Your task to perform on an android device: Empty the shopping cart on newegg. Search for jbl flip 4 on newegg, select the first entry, and add it to the cart. Image 0: 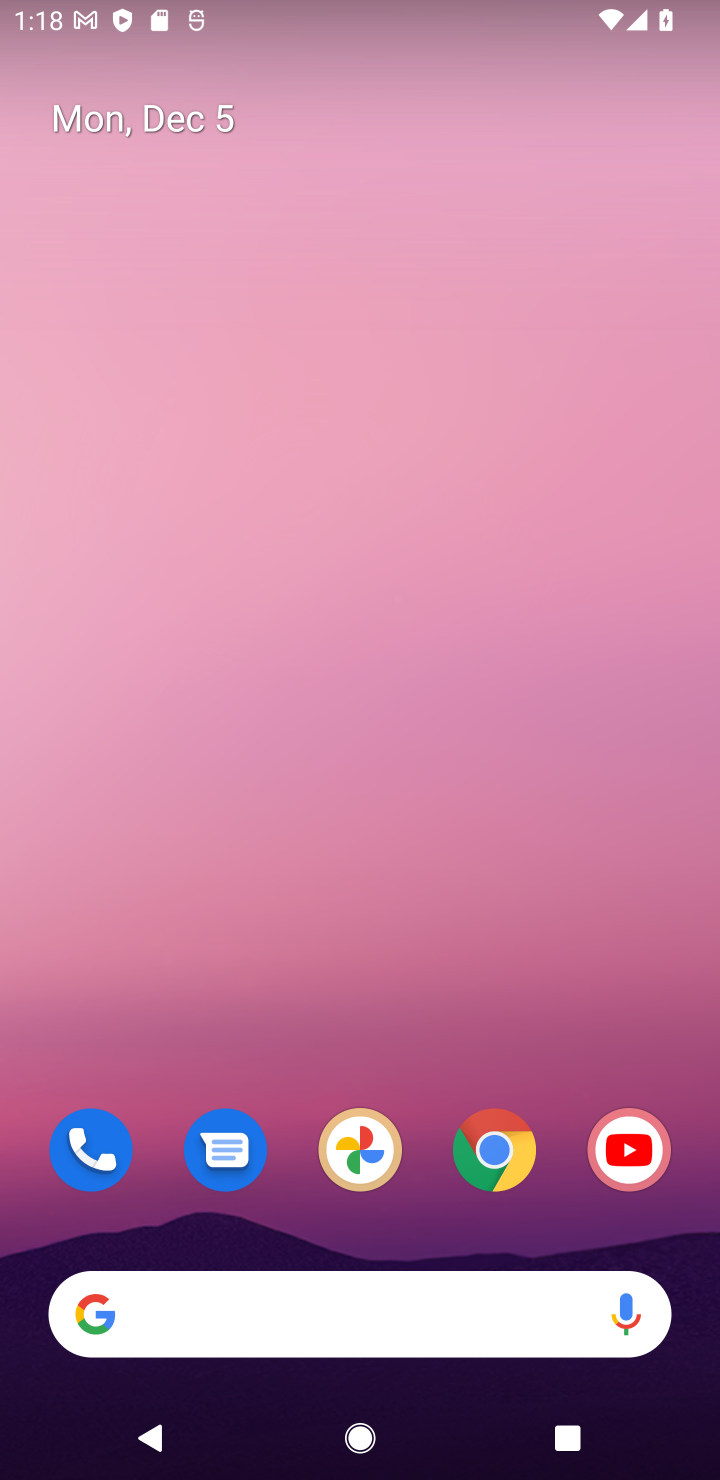
Step 0: click (517, 1139)
Your task to perform on an android device: Empty the shopping cart on newegg. Search for jbl flip 4 on newegg, select the first entry, and add it to the cart. Image 1: 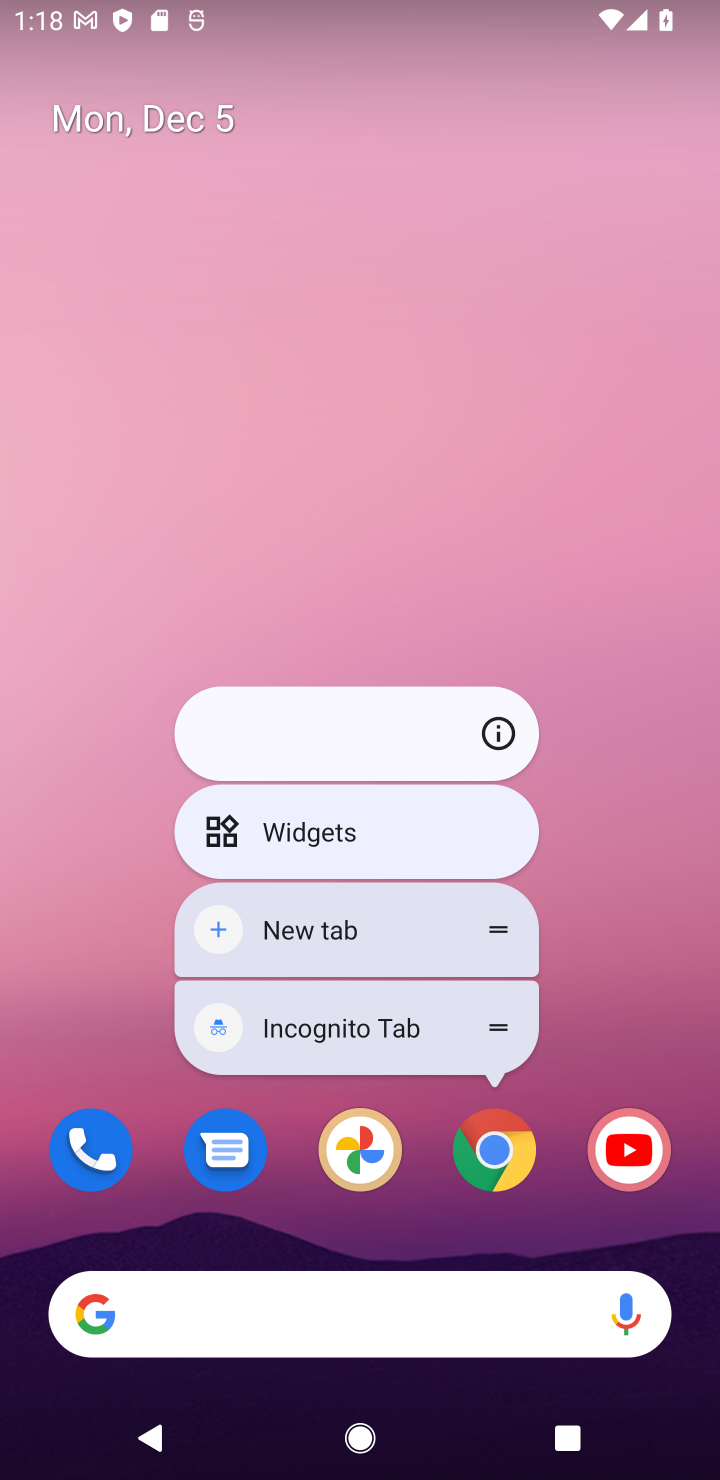
Step 1: click (517, 1139)
Your task to perform on an android device: Empty the shopping cart on newegg. Search for jbl flip 4 on newegg, select the first entry, and add it to the cart. Image 2: 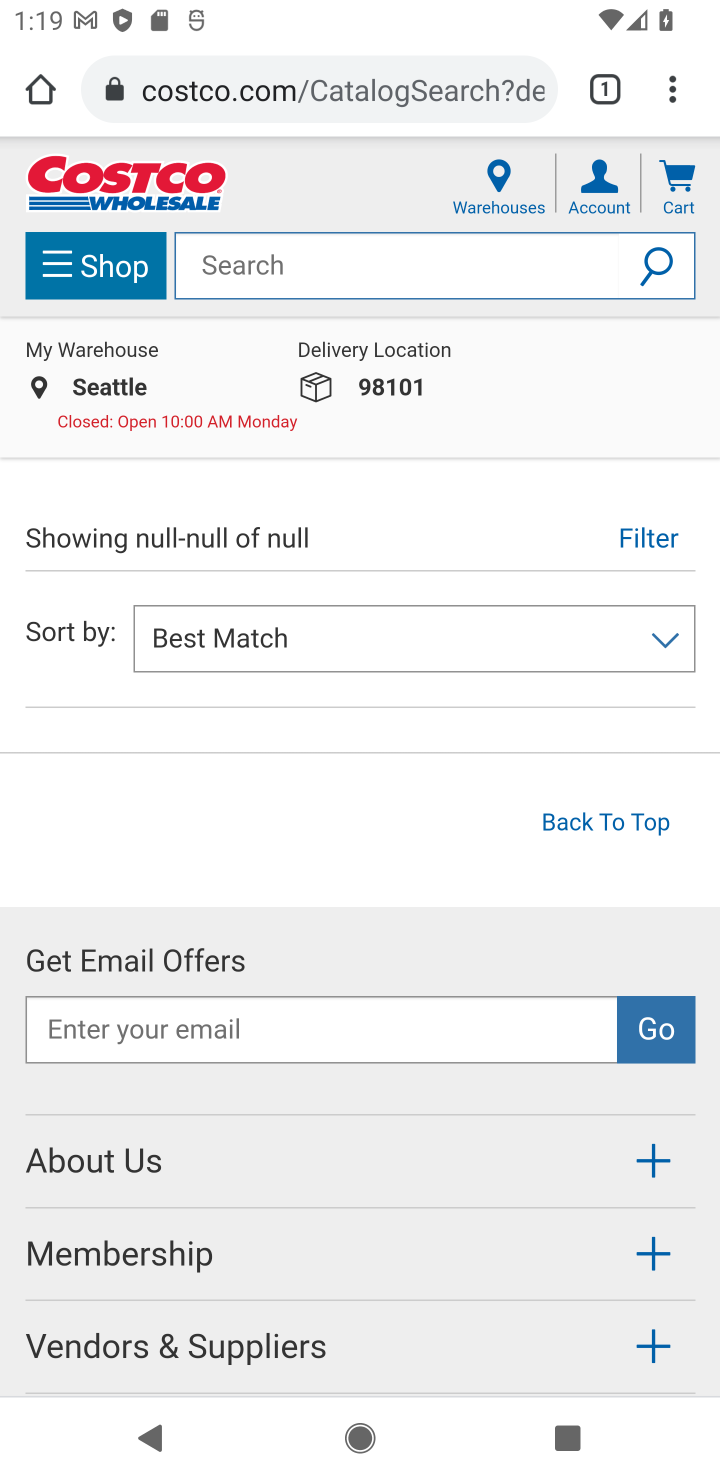
Step 2: click (388, 265)
Your task to perform on an android device: Empty the shopping cart on newegg. Search for jbl flip 4 on newegg, select the first entry, and add it to the cart. Image 3: 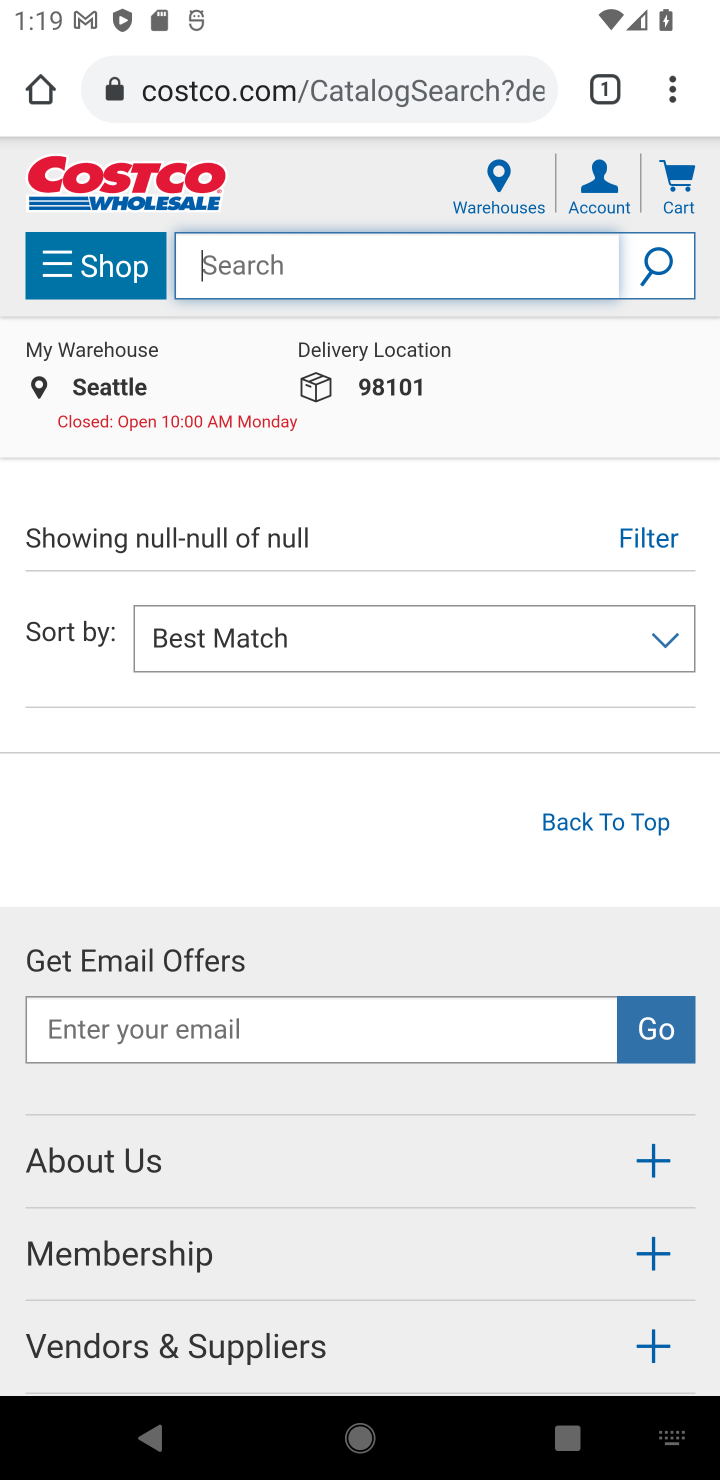
Step 3: press enter
Your task to perform on an android device: Empty the shopping cart on newegg. Search for jbl flip 4 on newegg, select the first entry, and add it to the cart. Image 4: 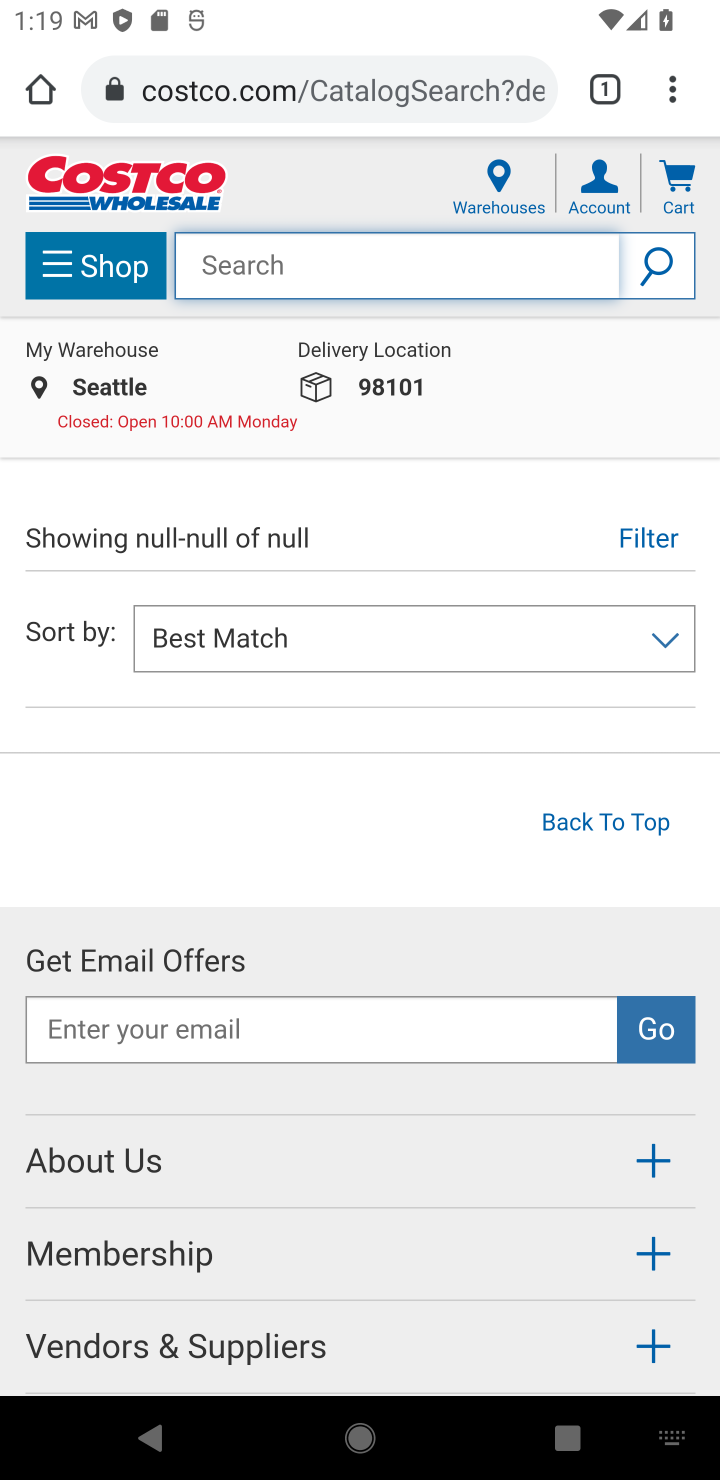
Step 4: type "jbl flip 4"
Your task to perform on an android device: Empty the shopping cart on newegg. Search for jbl flip 4 on newegg, select the first entry, and add it to the cart. Image 5: 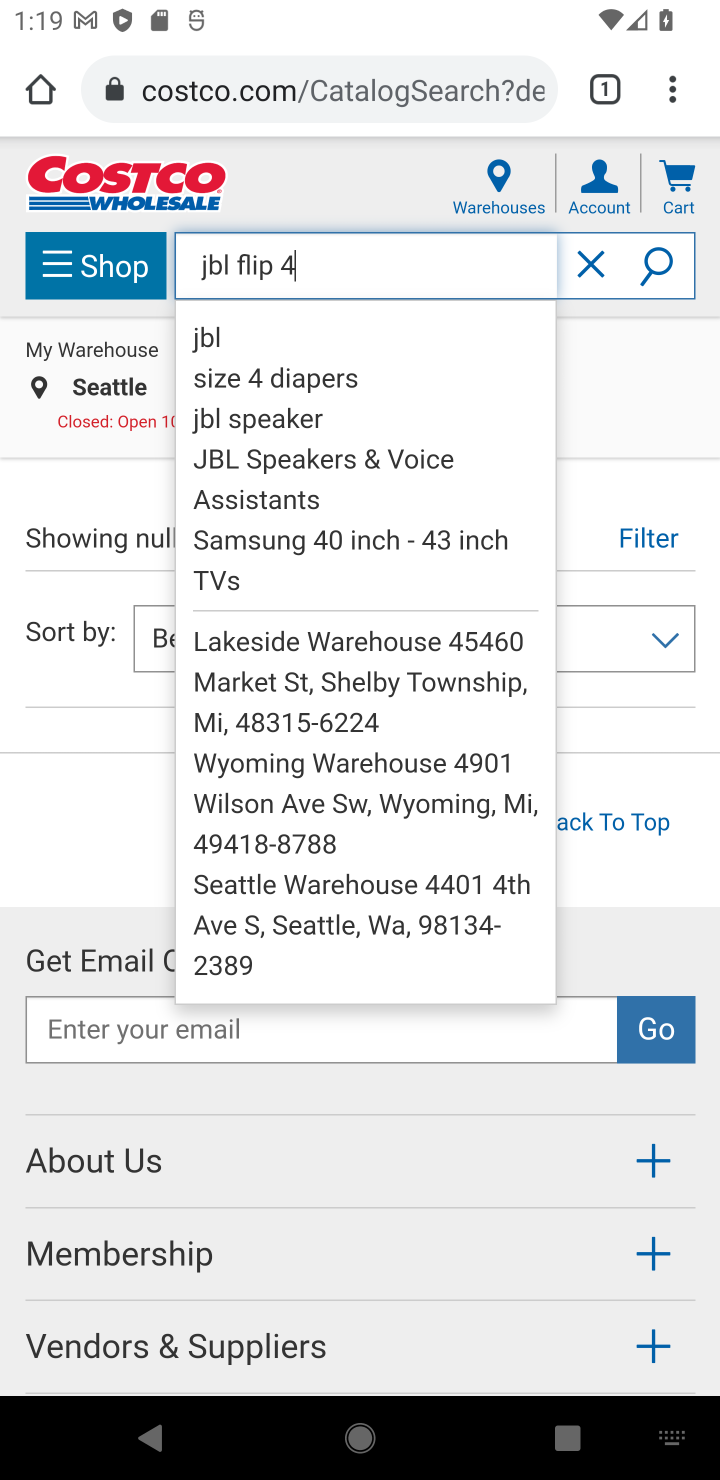
Step 5: click (676, 257)
Your task to perform on an android device: Empty the shopping cart on newegg. Search for jbl flip 4 on newegg, select the first entry, and add it to the cart. Image 6: 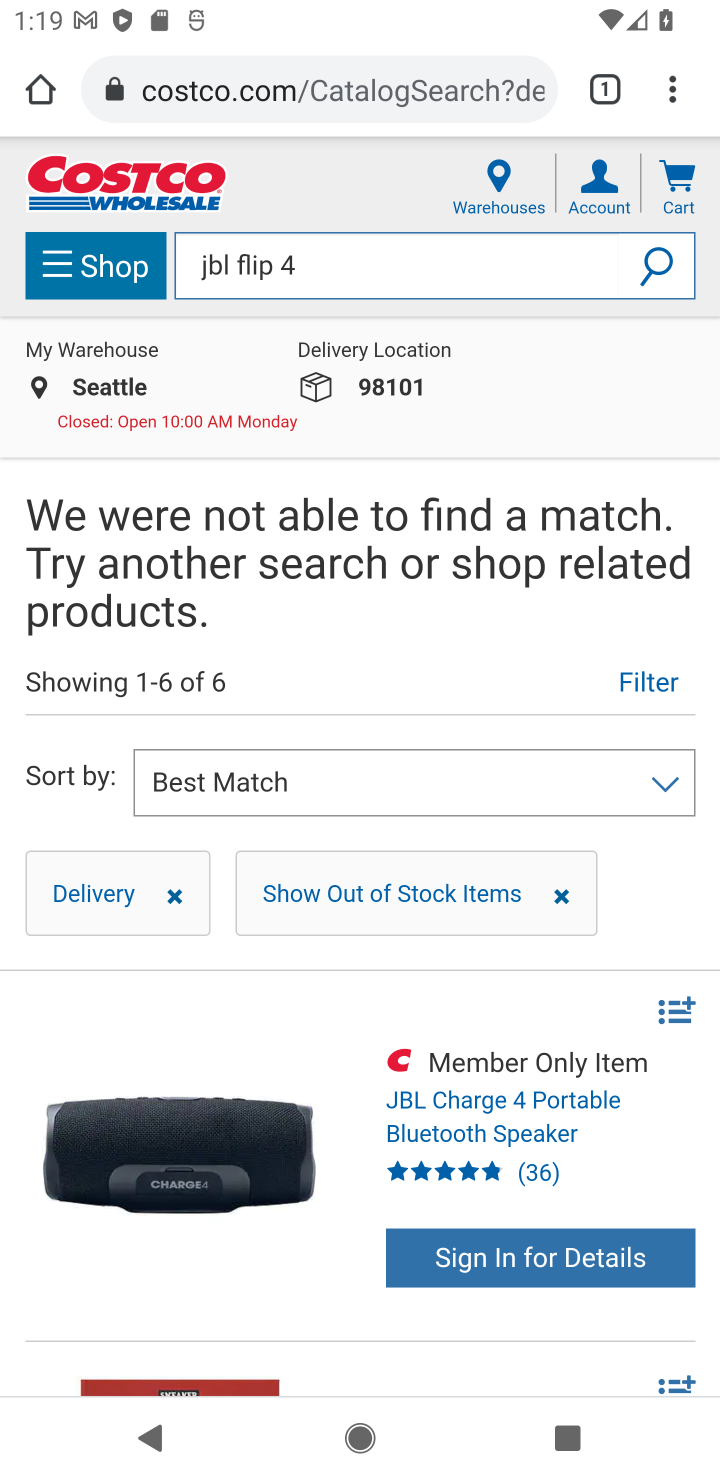
Step 6: task complete